Your task to perform on an android device: delete a single message in the gmail app Image 0: 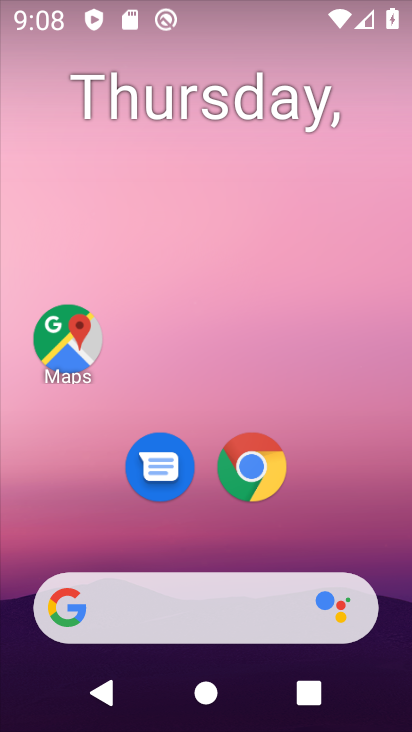
Step 0: drag from (314, 526) to (137, 5)
Your task to perform on an android device: delete a single message in the gmail app Image 1: 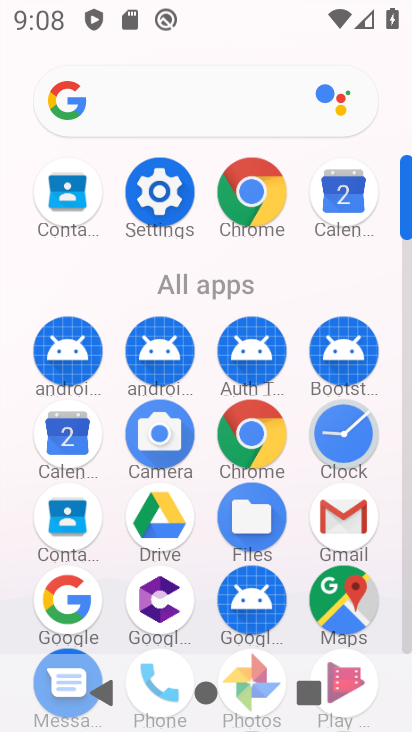
Step 1: click (357, 497)
Your task to perform on an android device: delete a single message in the gmail app Image 2: 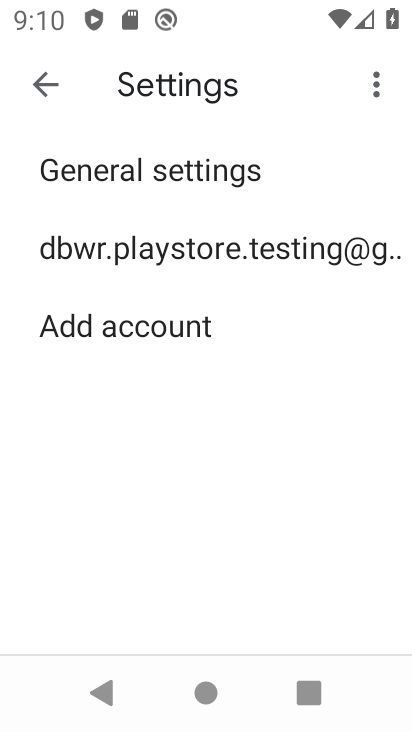
Step 2: press home button
Your task to perform on an android device: delete a single message in the gmail app Image 3: 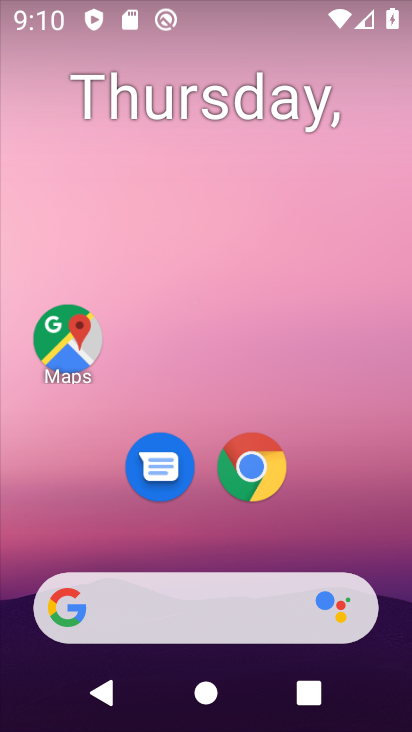
Step 3: drag from (387, 466) to (377, 27)
Your task to perform on an android device: delete a single message in the gmail app Image 4: 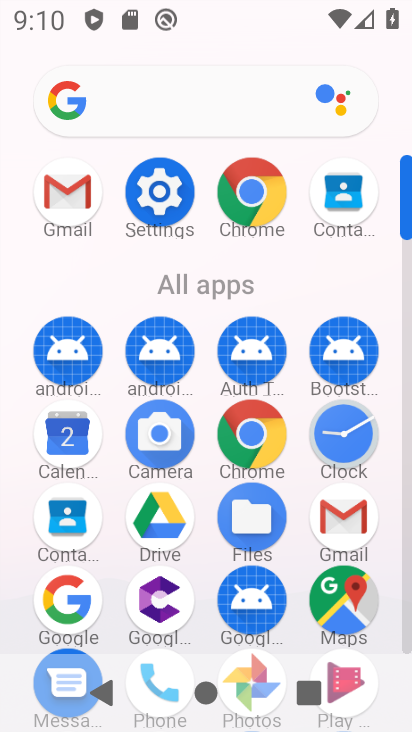
Step 4: click (322, 540)
Your task to perform on an android device: delete a single message in the gmail app Image 5: 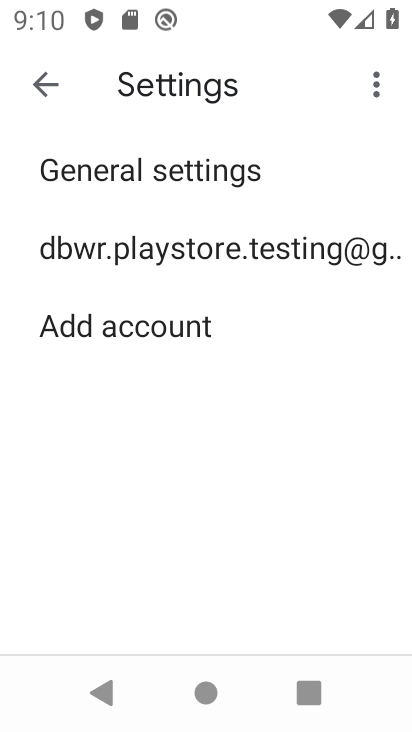
Step 5: click (51, 97)
Your task to perform on an android device: delete a single message in the gmail app Image 6: 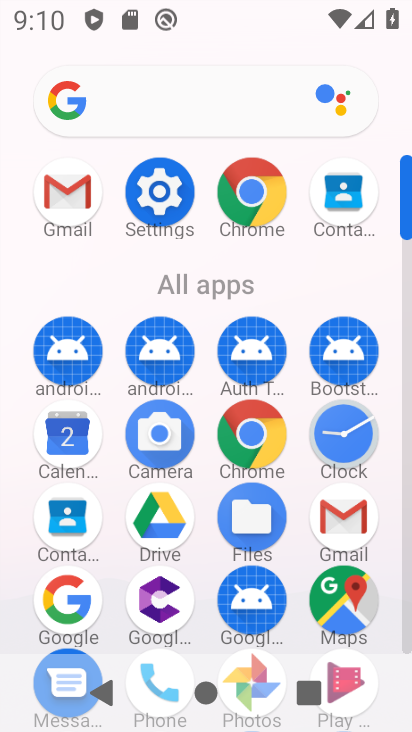
Step 6: click (81, 218)
Your task to perform on an android device: delete a single message in the gmail app Image 7: 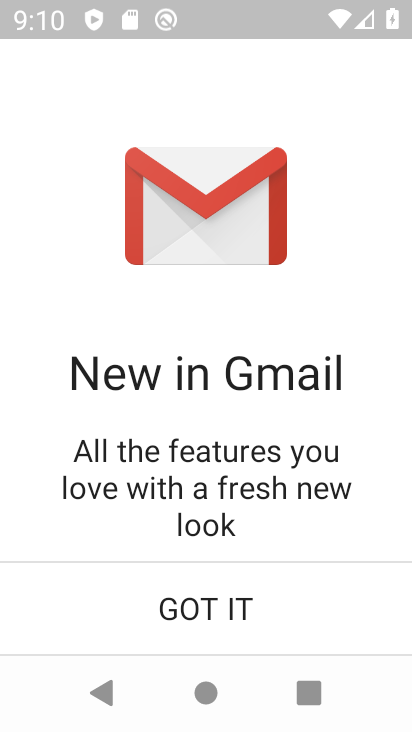
Step 7: click (211, 588)
Your task to perform on an android device: delete a single message in the gmail app Image 8: 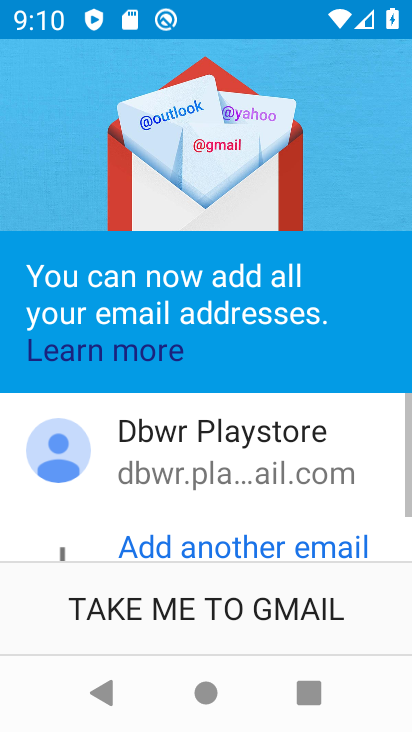
Step 8: click (208, 614)
Your task to perform on an android device: delete a single message in the gmail app Image 9: 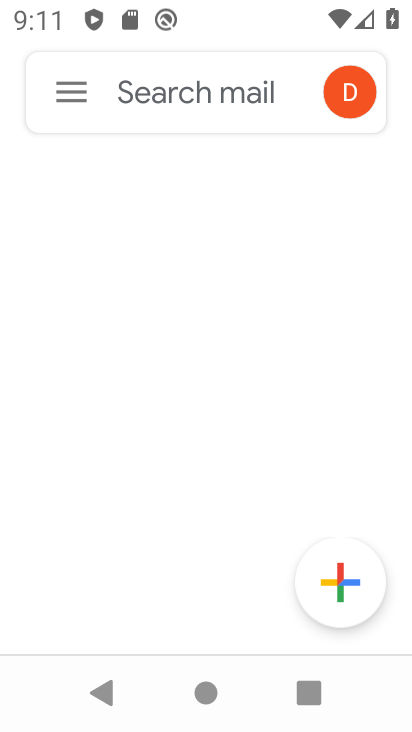
Step 9: click (157, 510)
Your task to perform on an android device: delete a single message in the gmail app Image 10: 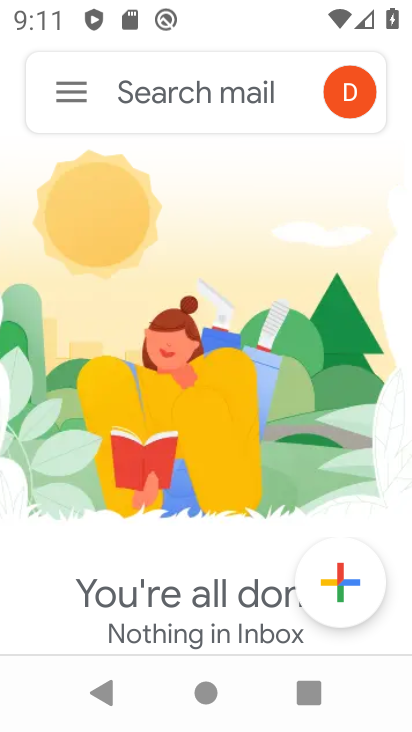
Step 10: task complete